Your task to perform on an android device: When is my next appointment? Image 0: 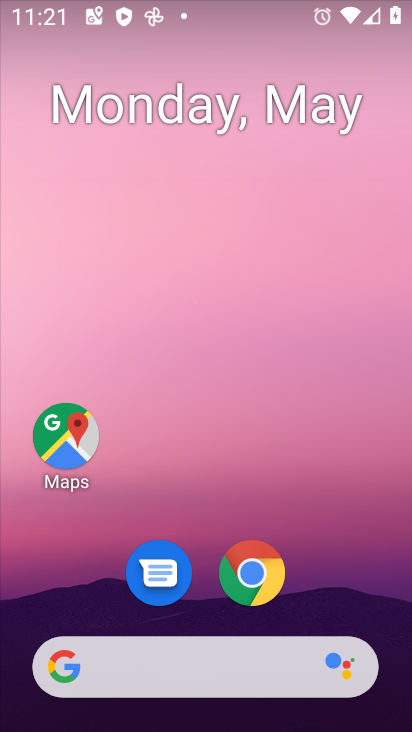
Step 0: drag from (342, 543) to (245, 97)
Your task to perform on an android device: When is my next appointment? Image 1: 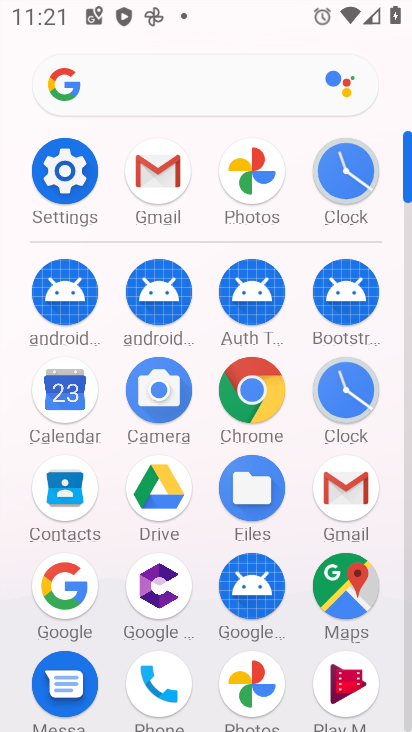
Step 1: click (61, 415)
Your task to perform on an android device: When is my next appointment? Image 2: 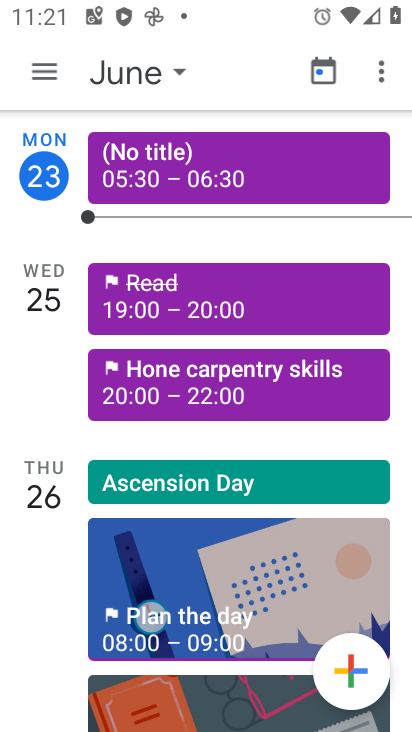
Step 2: task complete